Your task to perform on an android device: manage bookmarks in the chrome app Image 0: 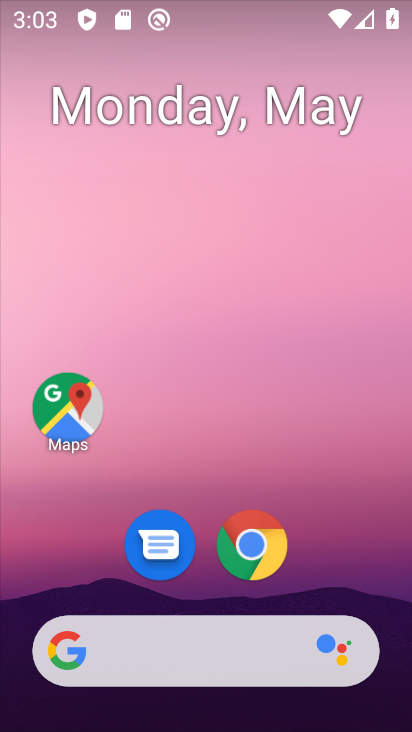
Step 0: click (244, 558)
Your task to perform on an android device: manage bookmarks in the chrome app Image 1: 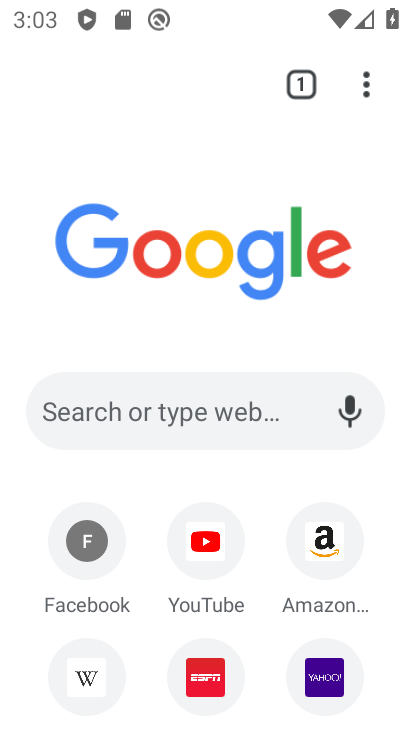
Step 1: drag from (365, 90) to (252, 318)
Your task to perform on an android device: manage bookmarks in the chrome app Image 2: 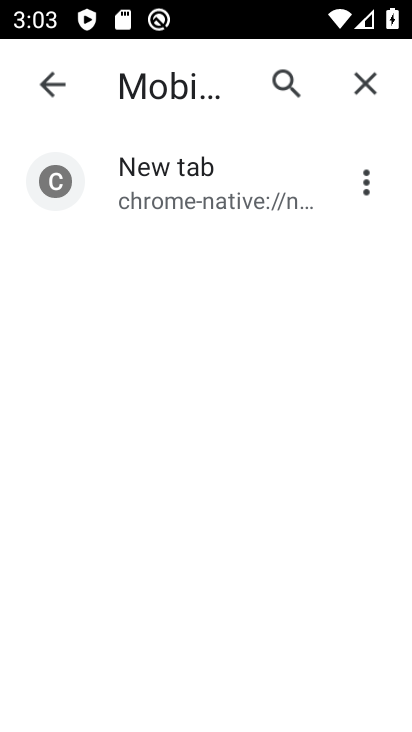
Step 2: click (366, 180)
Your task to perform on an android device: manage bookmarks in the chrome app Image 3: 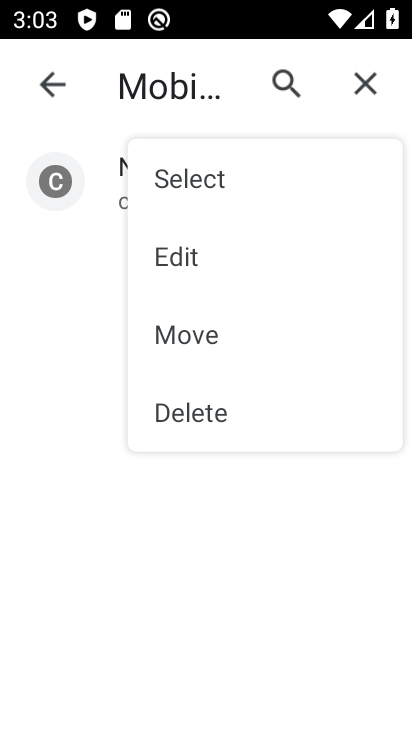
Step 3: click (245, 257)
Your task to perform on an android device: manage bookmarks in the chrome app Image 4: 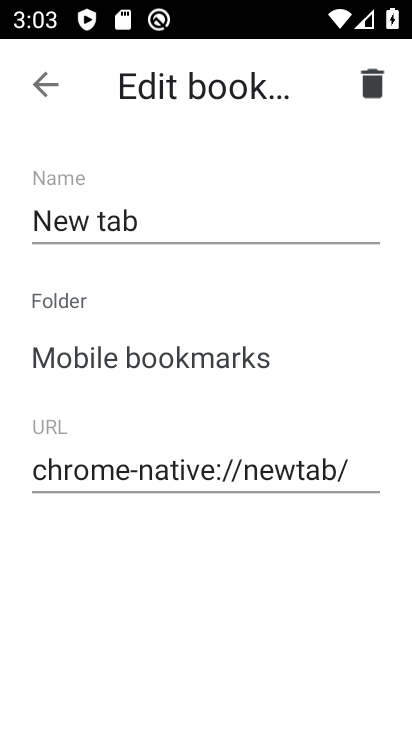
Step 4: click (215, 368)
Your task to perform on an android device: manage bookmarks in the chrome app Image 5: 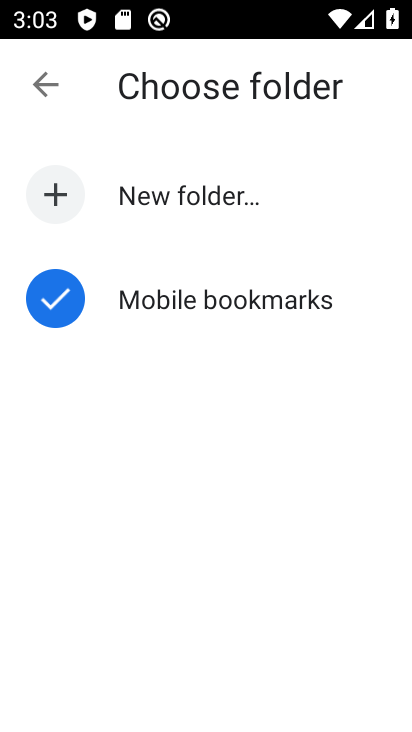
Step 5: click (156, 214)
Your task to perform on an android device: manage bookmarks in the chrome app Image 6: 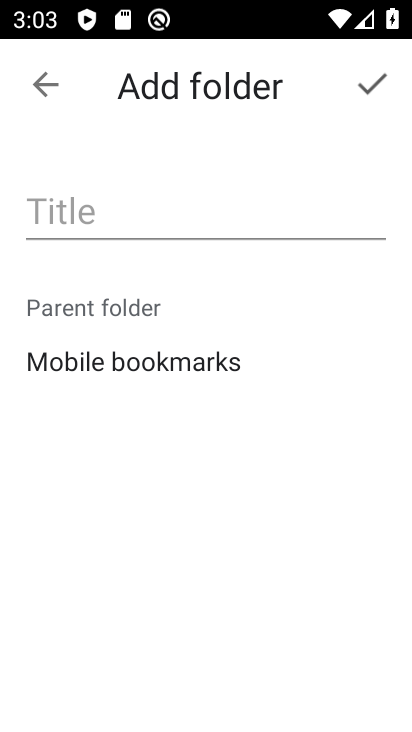
Step 6: click (134, 215)
Your task to perform on an android device: manage bookmarks in the chrome app Image 7: 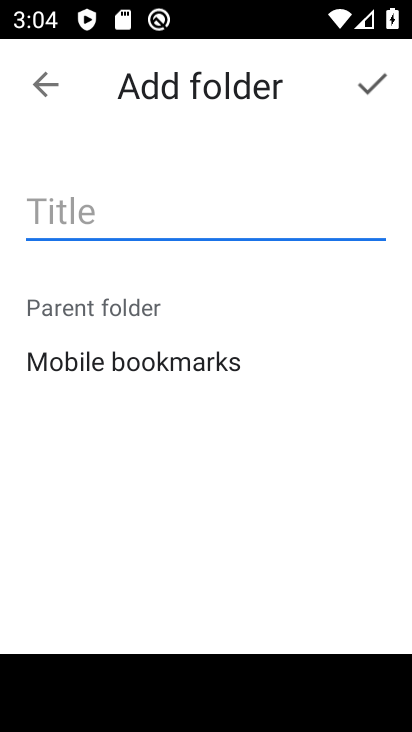
Step 7: type "data"
Your task to perform on an android device: manage bookmarks in the chrome app Image 8: 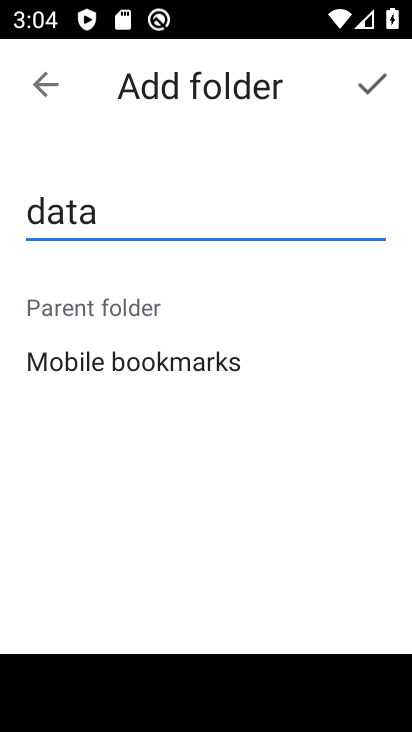
Step 8: click (373, 83)
Your task to perform on an android device: manage bookmarks in the chrome app Image 9: 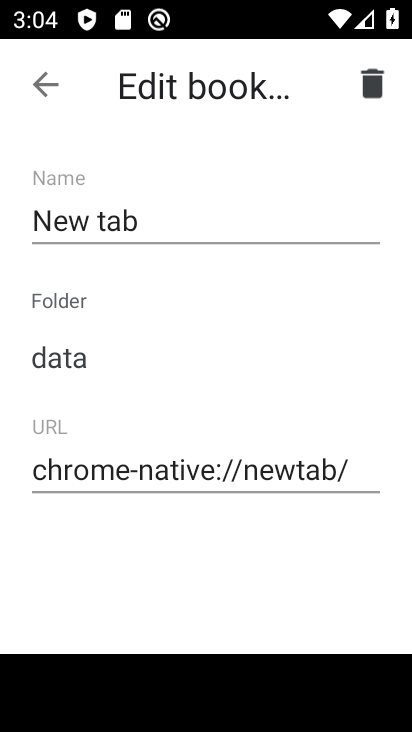
Step 9: task complete